Your task to perform on an android device: see sites visited before in the chrome app Image 0: 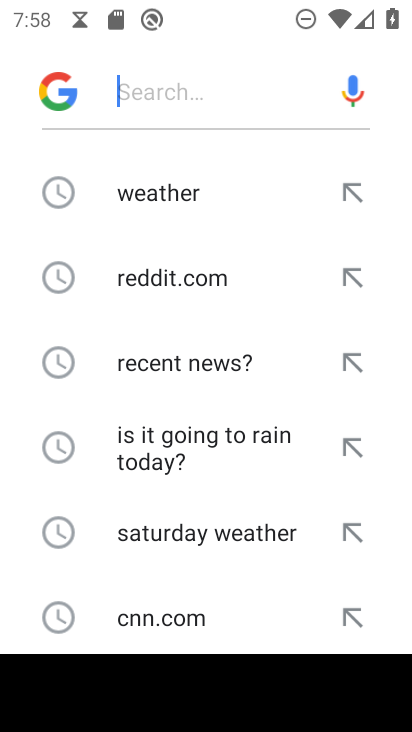
Step 0: press home button
Your task to perform on an android device: see sites visited before in the chrome app Image 1: 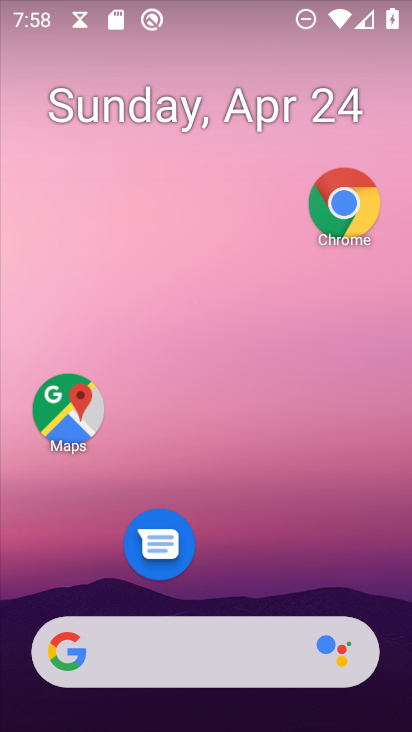
Step 1: drag from (167, 603) to (273, 156)
Your task to perform on an android device: see sites visited before in the chrome app Image 2: 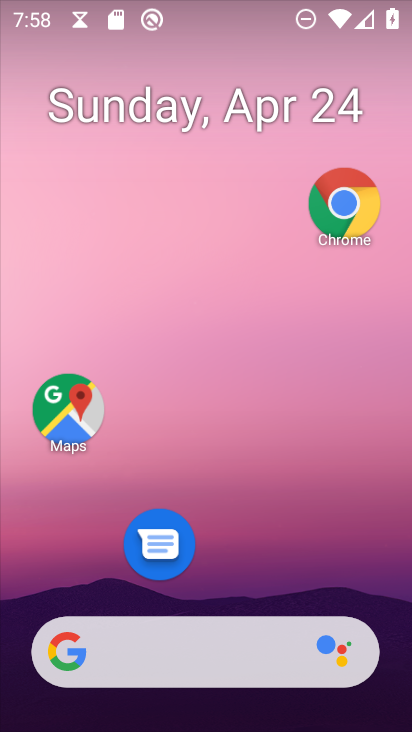
Step 2: drag from (197, 636) to (296, 125)
Your task to perform on an android device: see sites visited before in the chrome app Image 3: 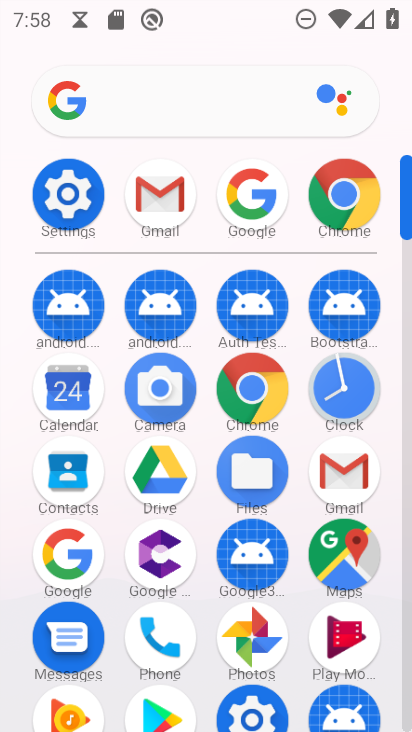
Step 3: click (343, 211)
Your task to perform on an android device: see sites visited before in the chrome app Image 4: 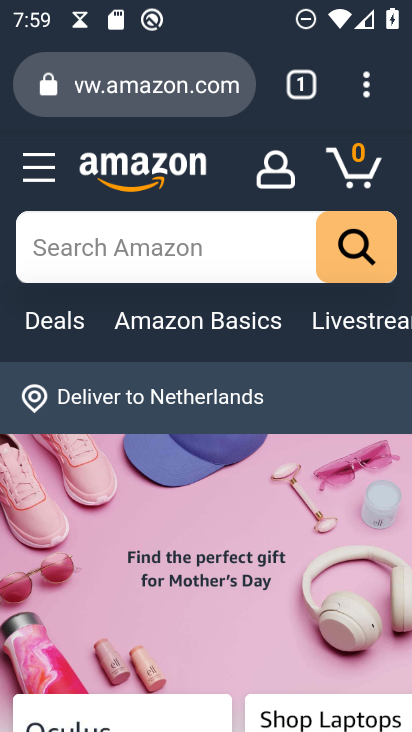
Step 4: drag from (365, 93) to (119, 401)
Your task to perform on an android device: see sites visited before in the chrome app Image 5: 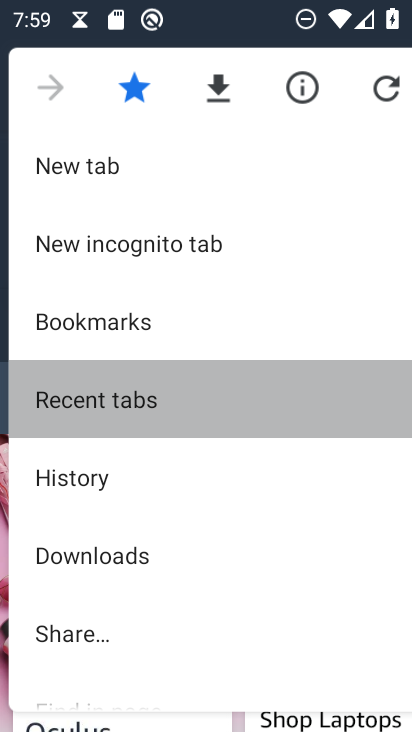
Step 5: click (119, 401)
Your task to perform on an android device: see sites visited before in the chrome app Image 6: 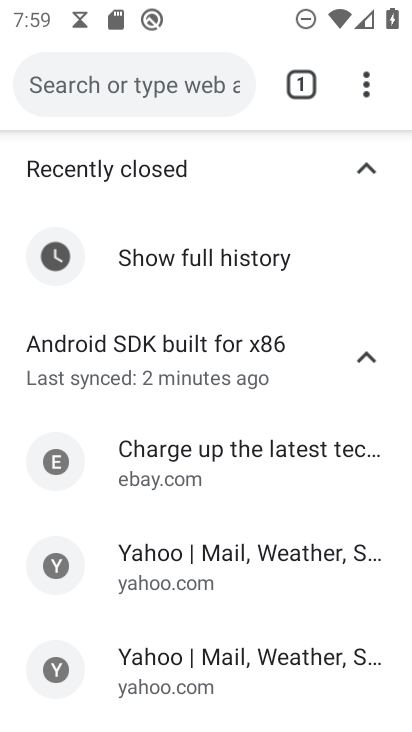
Step 6: task complete